Your task to perform on an android device: change timer sound Image 0: 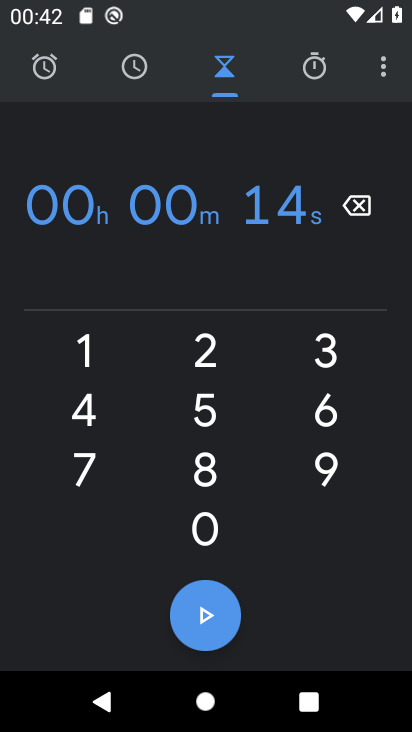
Step 0: click (405, 173)
Your task to perform on an android device: change timer sound Image 1: 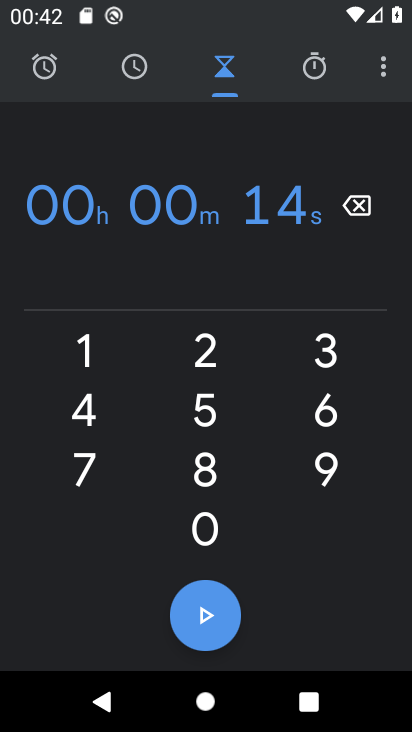
Step 1: click (386, 67)
Your task to perform on an android device: change timer sound Image 2: 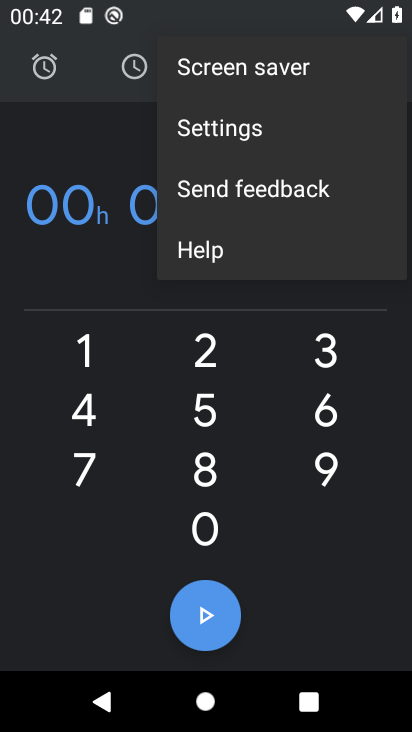
Step 2: click (306, 136)
Your task to perform on an android device: change timer sound Image 3: 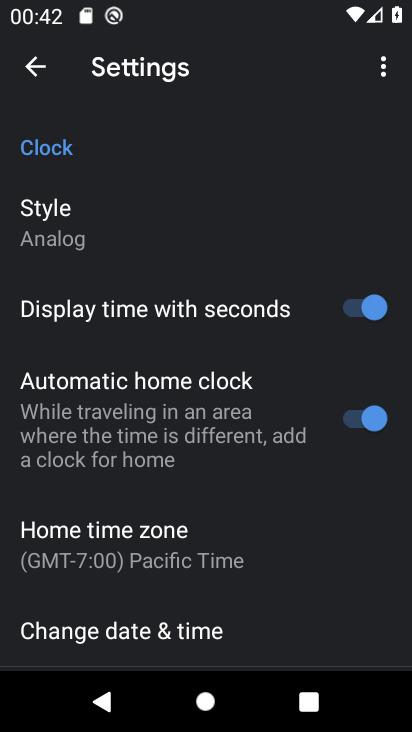
Step 3: drag from (258, 614) to (263, 74)
Your task to perform on an android device: change timer sound Image 4: 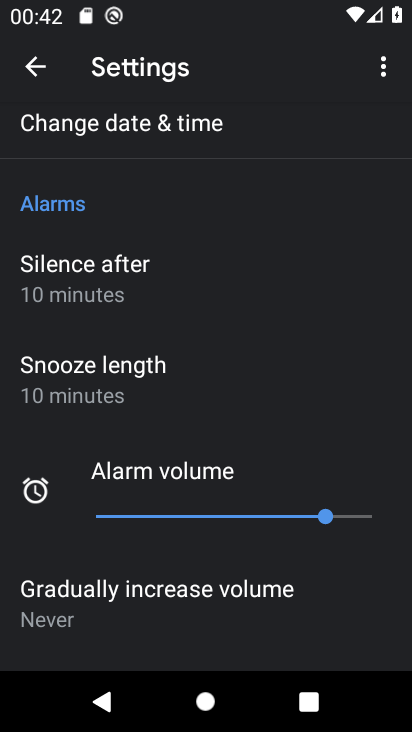
Step 4: drag from (228, 358) to (263, 53)
Your task to perform on an android device: change timer sound Image 5: 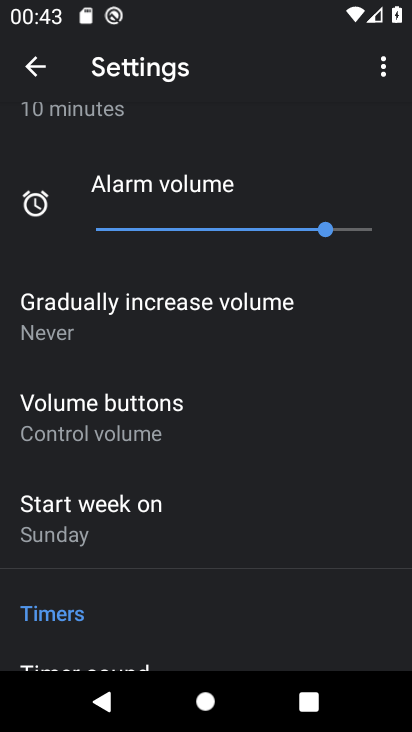
Step 5: drag from (224, 540) to (246, 298)
Your task to perform on an android device: change timer sound Image 6: 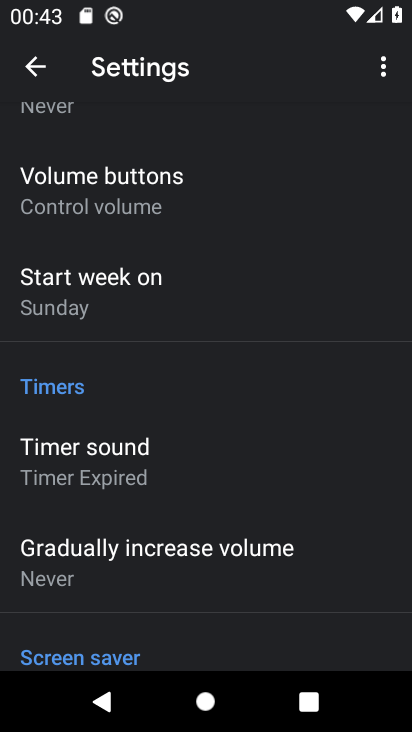
Step 6: click (174, 456)
Your task to perform on an android device: change timer sound Image 7: 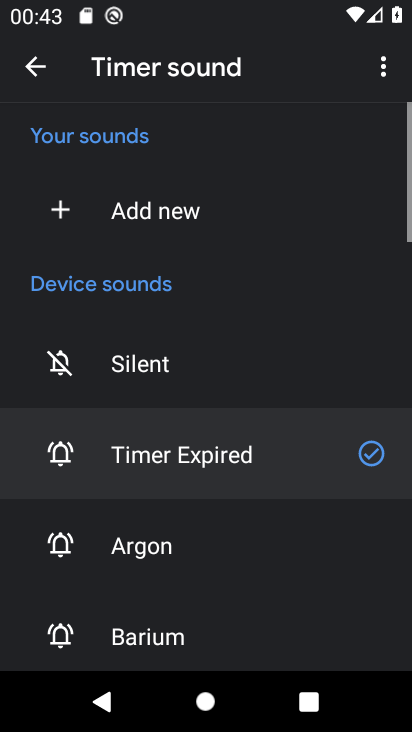
Step 7: click (161, 559)
Your task to perform on an android device: change timer sound Image 8: 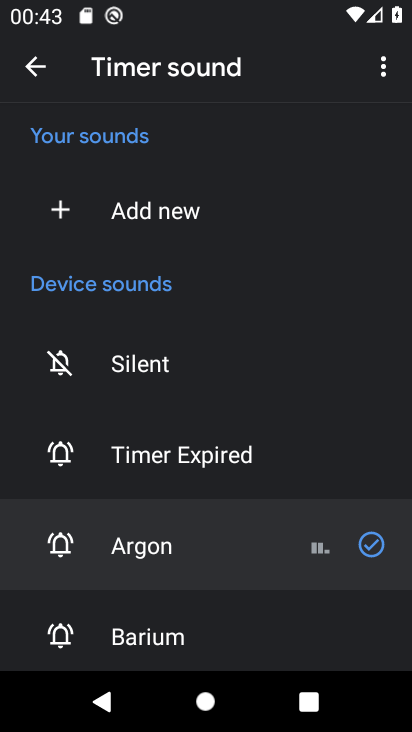
Step 8: task complete